Your task to perform on an android device: add a contact Image 0: 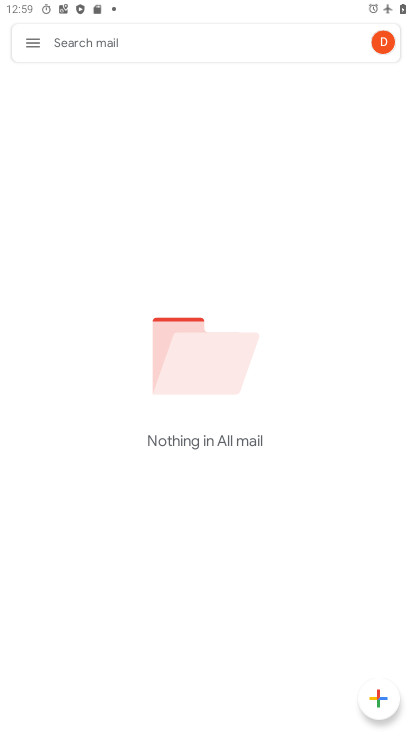
Step 0: press home button
Your task to perform on an android device: add a contact Image 1: 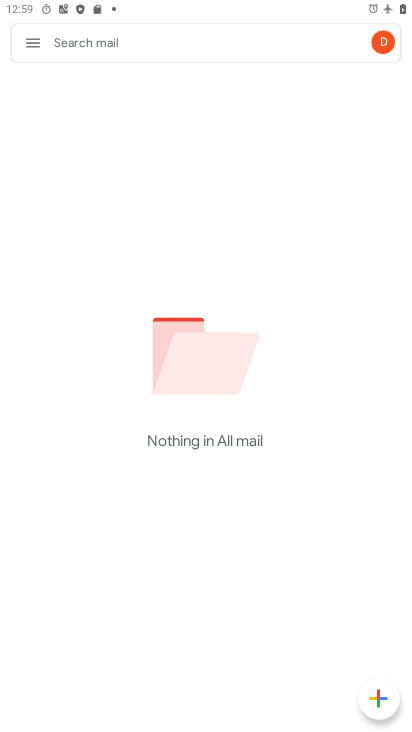
Step 1: press home button
Your task to perform on an android device: add a contact Image 2: 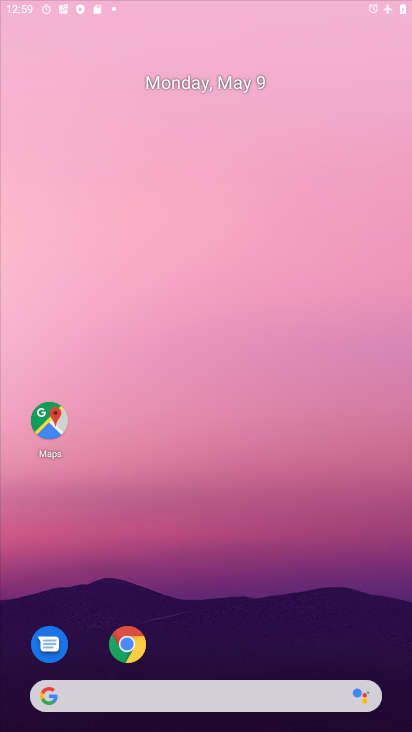
Step 2: press home button
Your task to perform on an android device: add a contact Image 3: 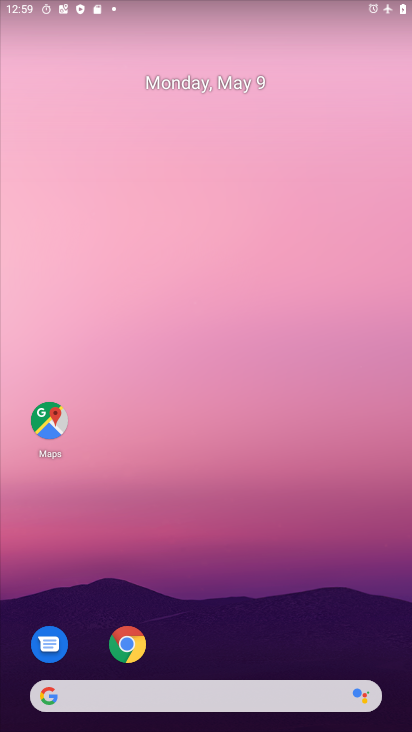
Step 3: press home button
Your task to perform on an android device: add a contact Image 4: 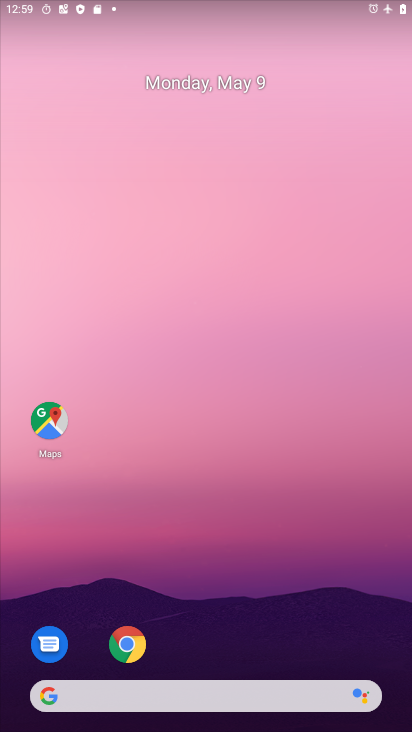
Step 4: drag from (392, 612) to (331, 36)
Your task to perform on an android device: add a contact Image 5: 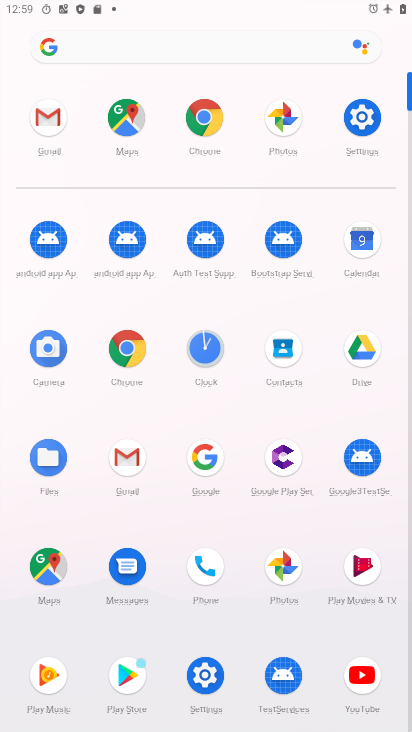
Step 5: click (282, 359)
Your task to perform on an android device: add a contact Image 6: 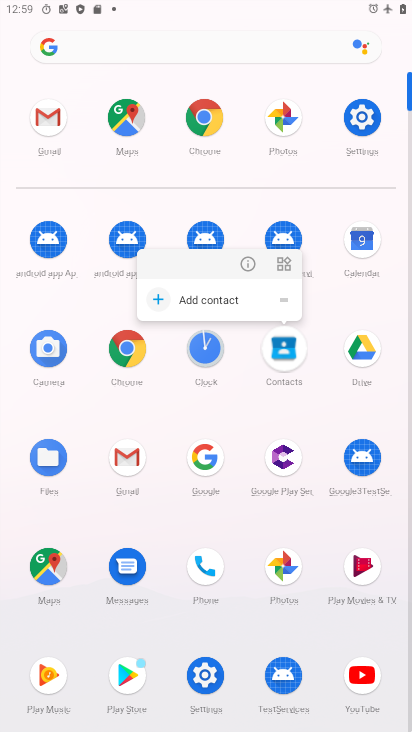
Step 6: click (281, 359)
Your task to perform on an android device: add a contact Image 7: 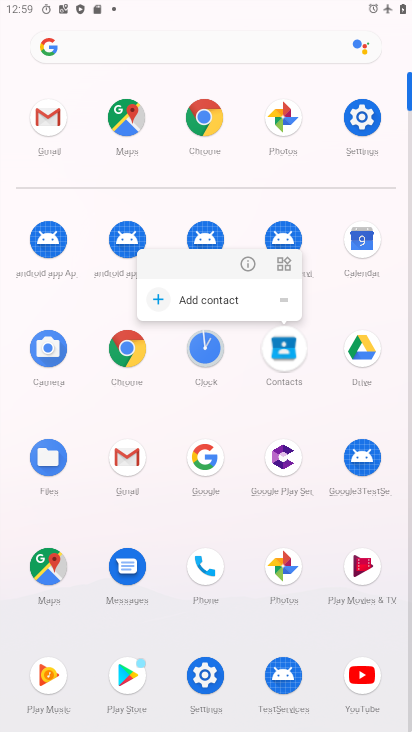
Step 7: click (281, 359)
Your task to perform on an android device: add a contact Image 8: 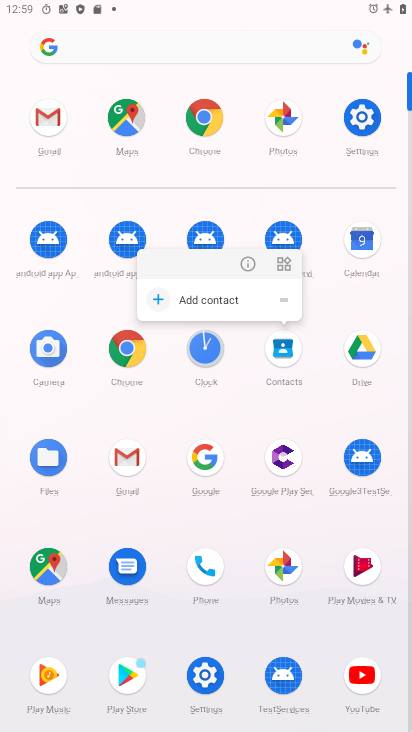
Step 8: click (213, 300)
Your task to perform on an android device: add a contact Image 9: 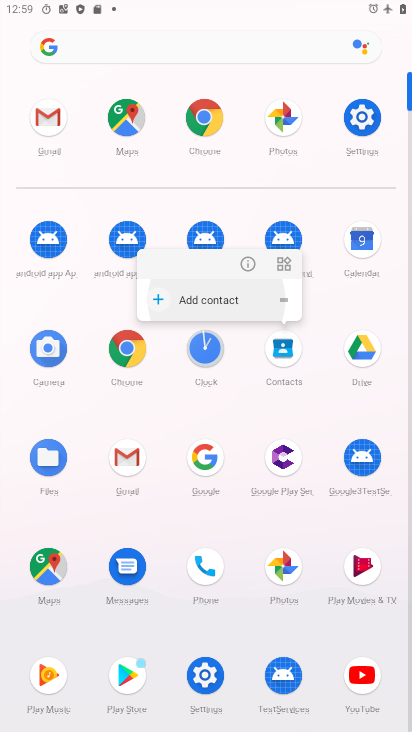
Step 9: click (213, 300)
Your task to perform on an android device: add a contact Image 10: 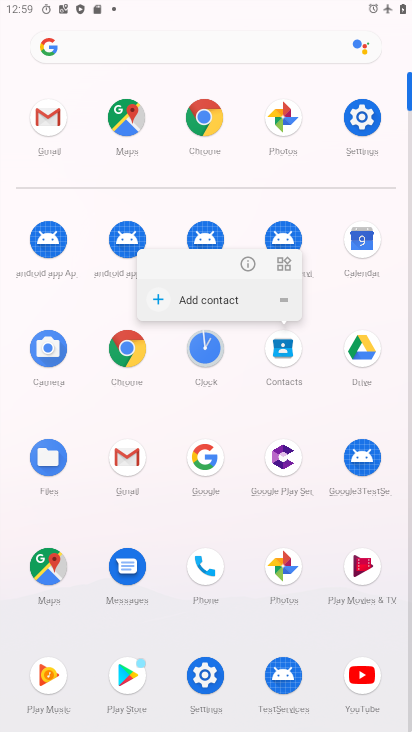
Step 10: click (213, 300)
Your task to perform on an android device: add a contact Image 11: 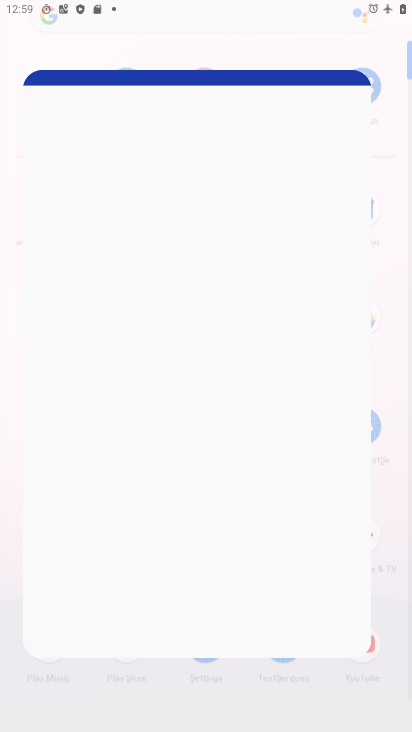
Step 11: click (213, 300)
Your task to perform on an android device: add a contact Image 12: 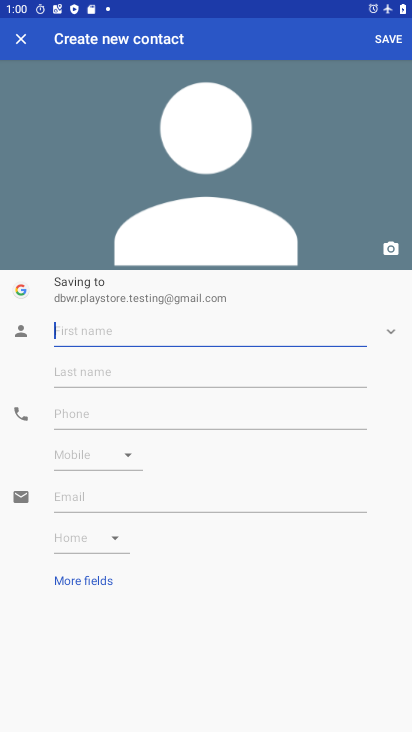
Step 12: type "rupam"
Your task to perform on an android device: add a contact Image 13: 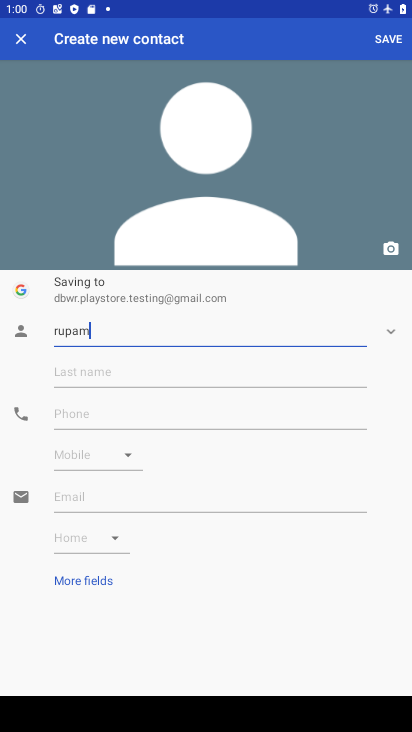
Step 13: click (88, 419)
Your task to perform on an android device: add a contact Image 14: 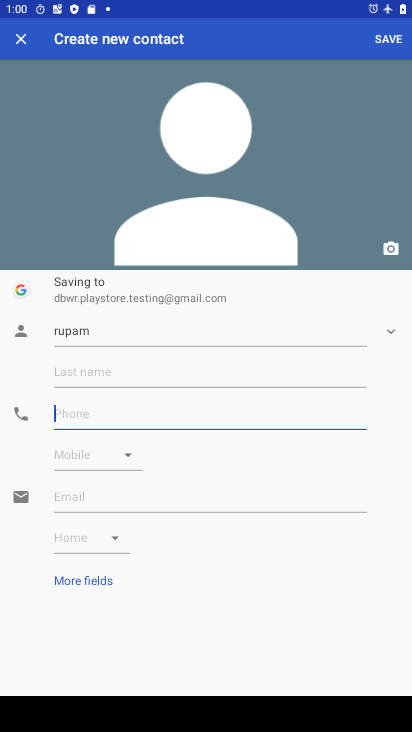
Step 14: type "9786567645"
Your task to perform on an android device: add a contact Image 15: 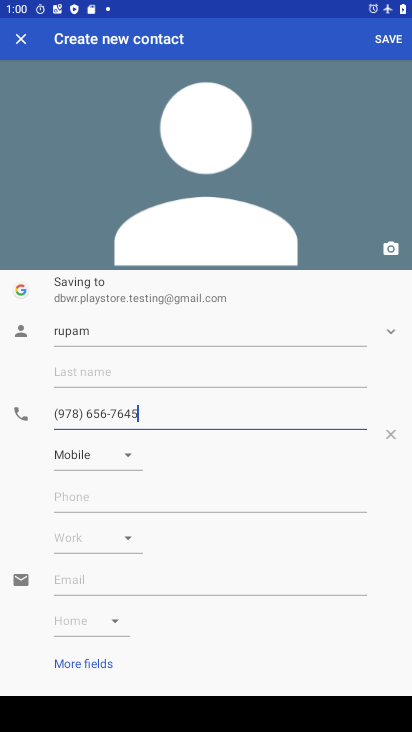
Step 15: click (389, 41)
Your task to perform on an android device: add a contact Image 16: 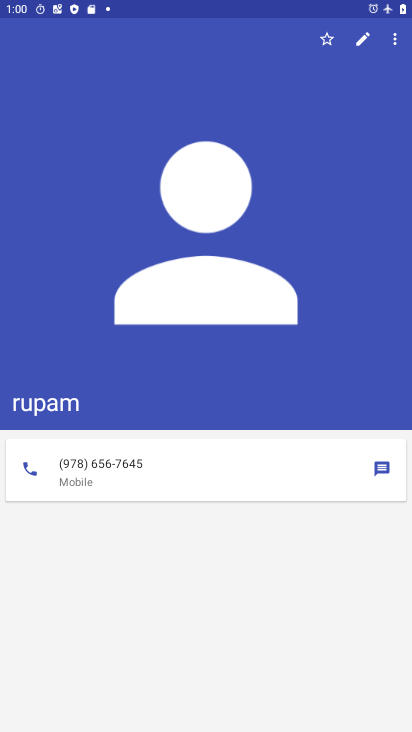
Step 16: task complete